Your task to perform on an android device: Check the weather Image 0: 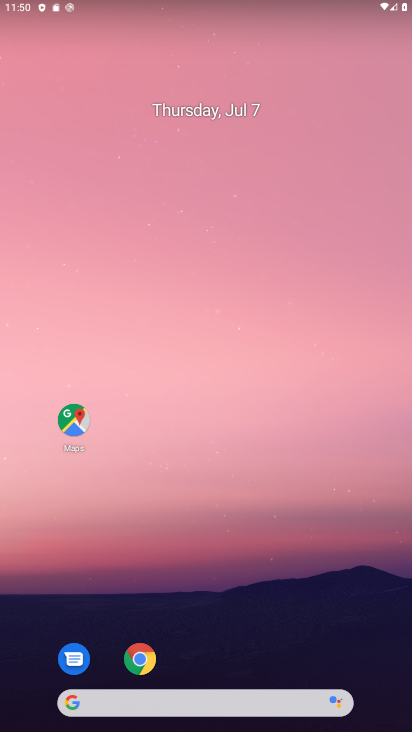
Step 0: click (222, 694)
Your task to perform on an android device: Check the weather Image 1: 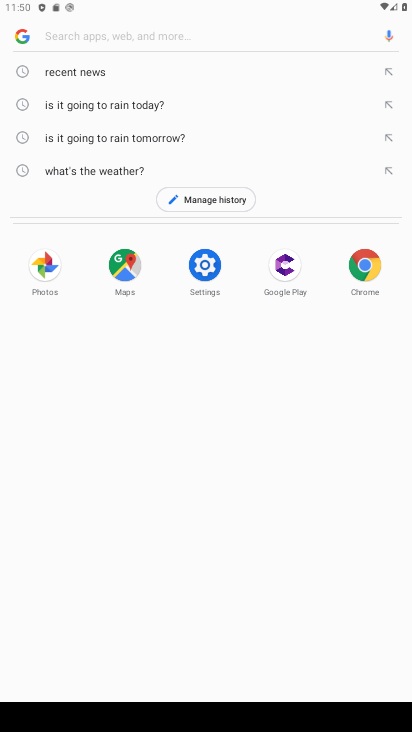
Step 1: type "weather"
Your task to perform on an android device: Check the weather Image 2: 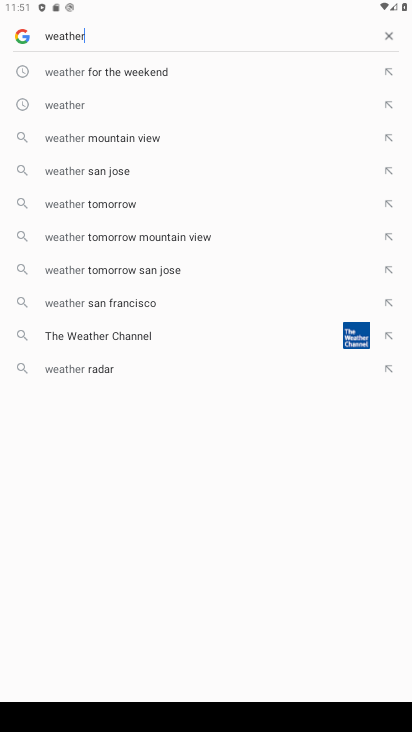
Step 2: click (50, 98)
Your task to perform on an android device: Check the weather Image 3: 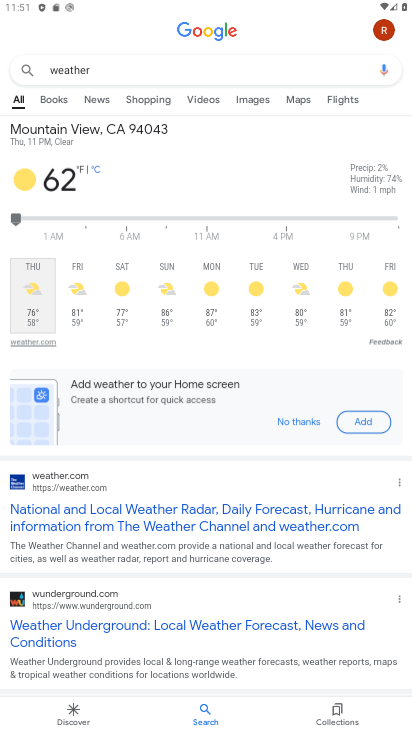
Step 3: task complete